Your task to perform on an android device: open the mobile data screen to see how much data has been used Image 0: 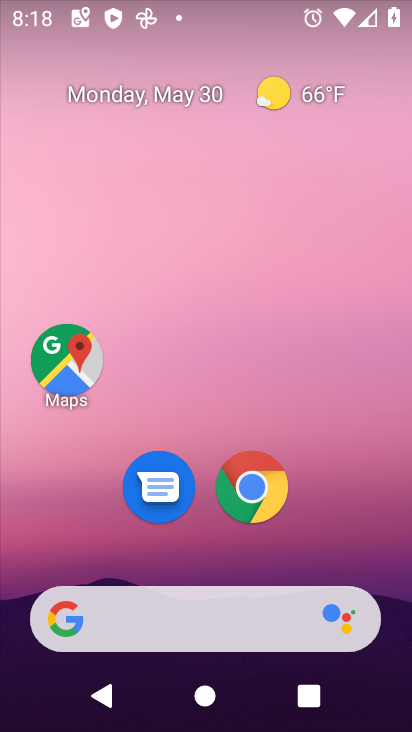
Step 0: press home button
Your task to perform on an android device: open the mobile data screen to see how much data has been used Image 1: 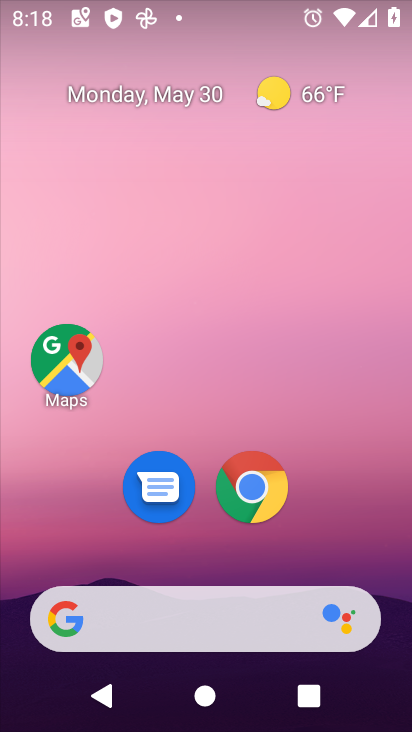
Step 1: drag from (324, 333) to (283, 150)
Your task to perform on an android device: open the mobile data screen to see how much data has been used Image 2: 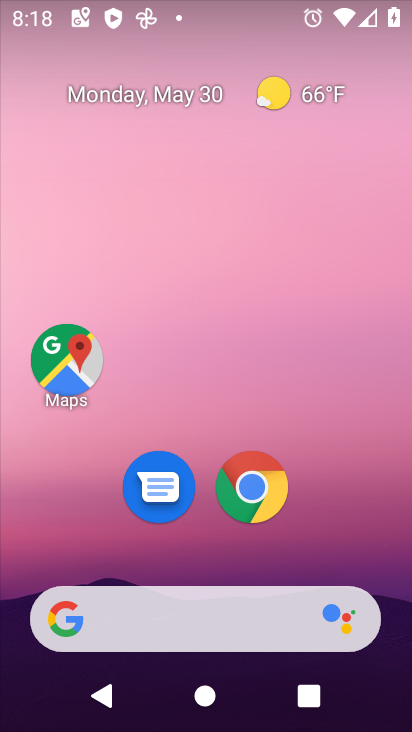
Step 2: drag from (287, 37) to (301, 321)
Your task to perform on an android device: open the mobile data screen to see how much data has been used Image 3: 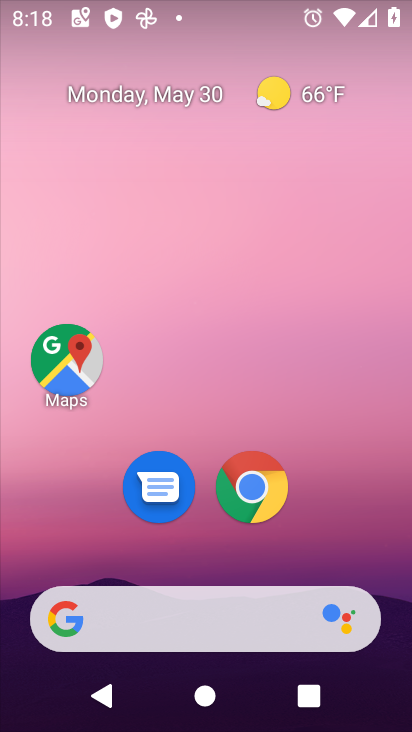
Step 3: drag from (333, 516) to (314, 108)
Your task to perform on an android device: open the mobile data screen to see how much data has been used Image 4: 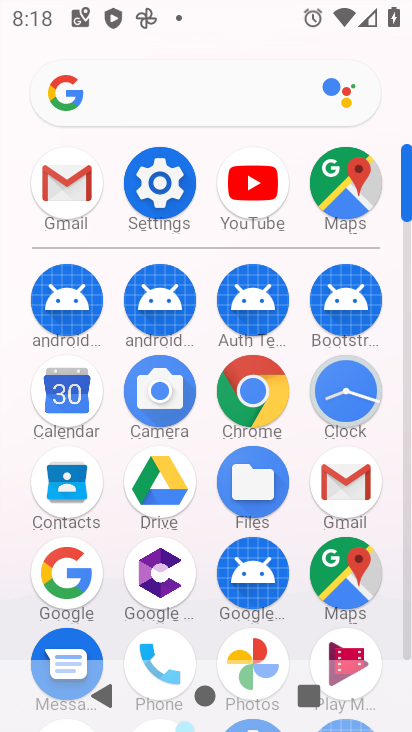
Step 4: click (164, 209)
Your task to perform on an android device: open the mobile data screen to see how much data has been used Image 5: 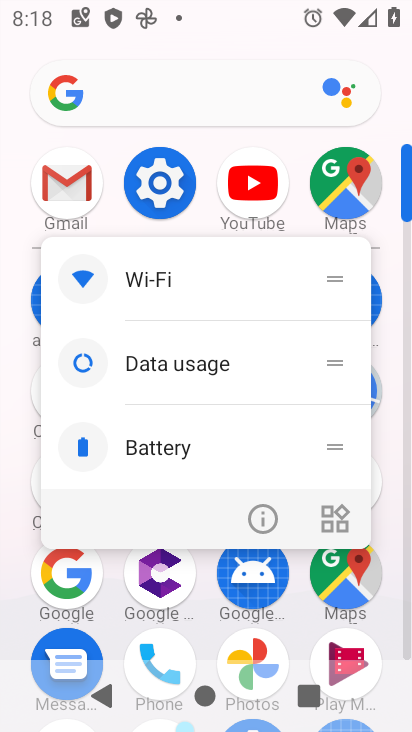
Step 5: click (192, 364)
Your task to perform on an android device: open the mobile data screen to see how much data has been used Image 6: 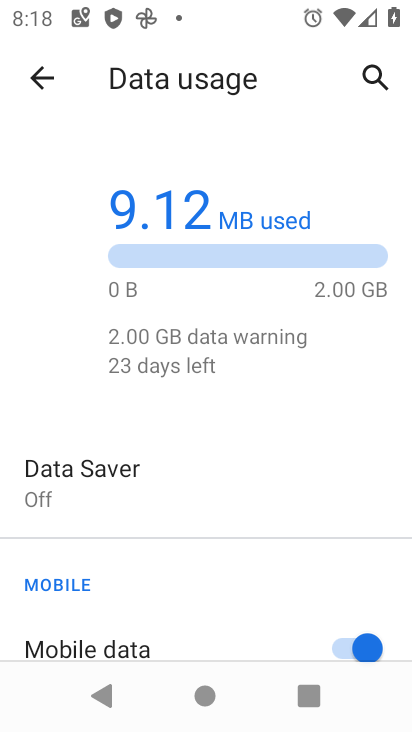
Step 6: drag from (192, 487) to (165, 168)
Your task to perform on an android device: open the mobile data screen to see how much data has been used Image 7: 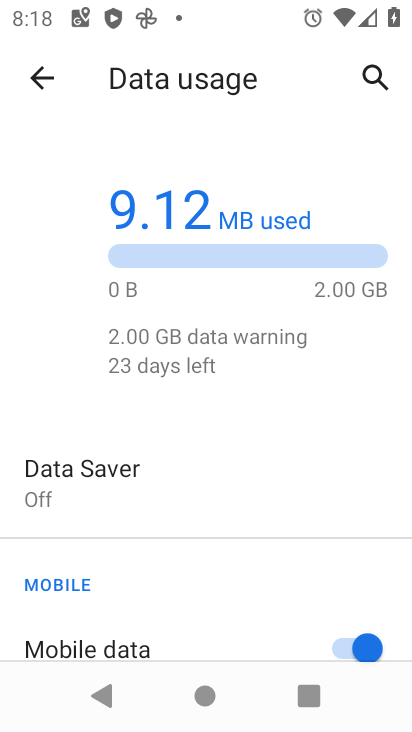
Step 7: drag from (248, 382) to (250, 133)
Your task to perform on an android device: open the mobile data screen to see how much data has been used Image 8: 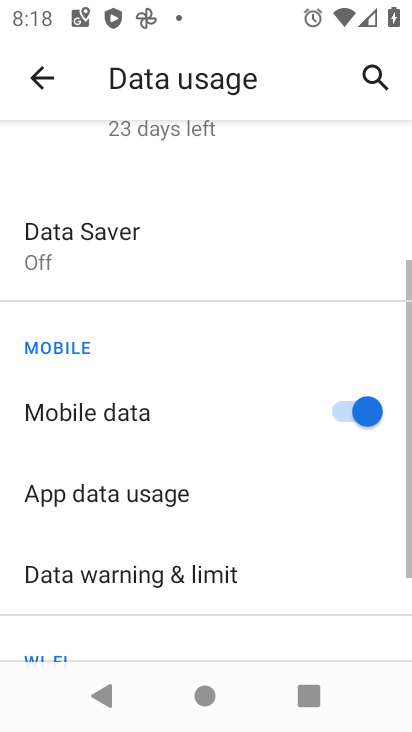
Step 8: drag from (278, 413) to (295, 119)
Your task to perform on an android device: open the mobile data screen to see how much data has been used Image 9: 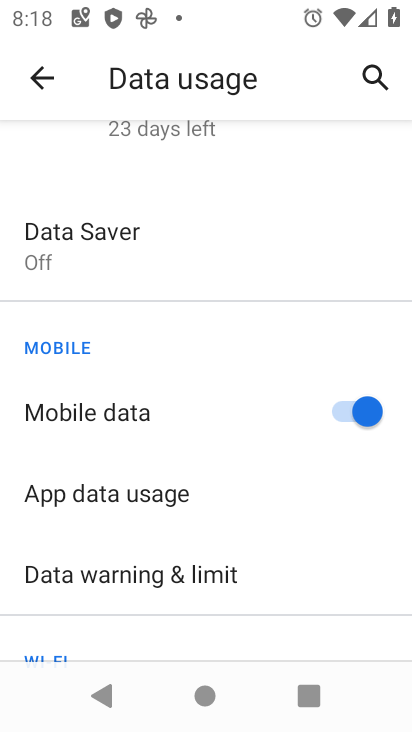
Step 9: click (143, 501)
Your task to perform on an android device: open the mobile data screen to see how much data has been used Image 10: 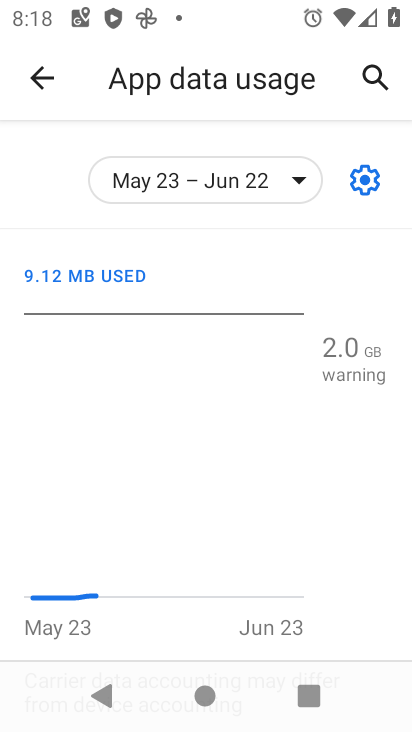
Step 10: task complete